Your task to perform on an android device: change notifications settings Image 0: 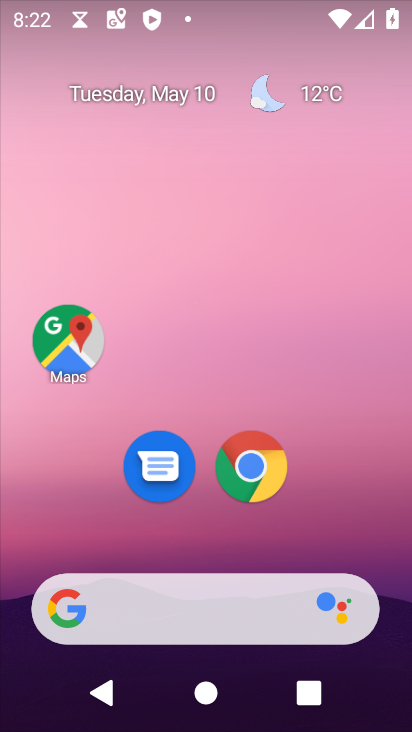
Step 0: drag from (208, 557) to (319, 44)
Your task to perform on an android device: change notifications settings Image 1: 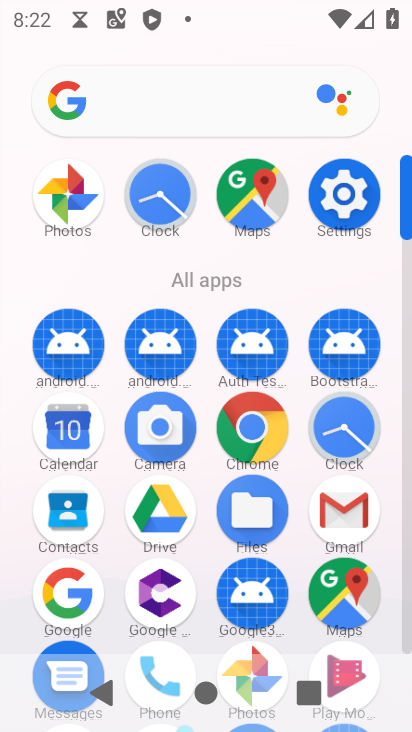
Step 1: click (345, 220)
Your task to perform on an android device: change notifications settings Image 2: 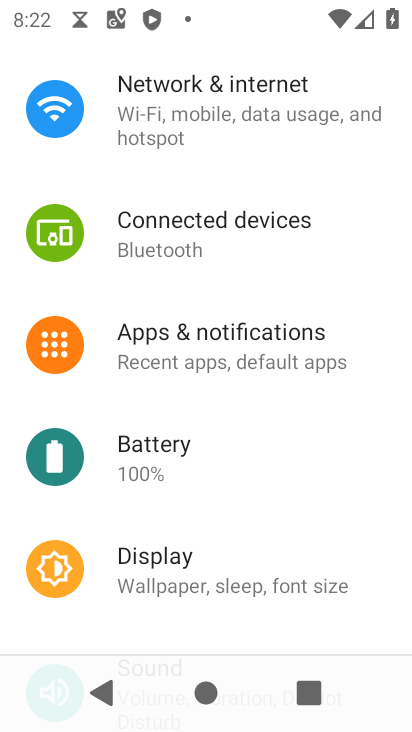
Step 2: click (280, 338)
Your task to perform on an android device: change notifications settings Image 3: 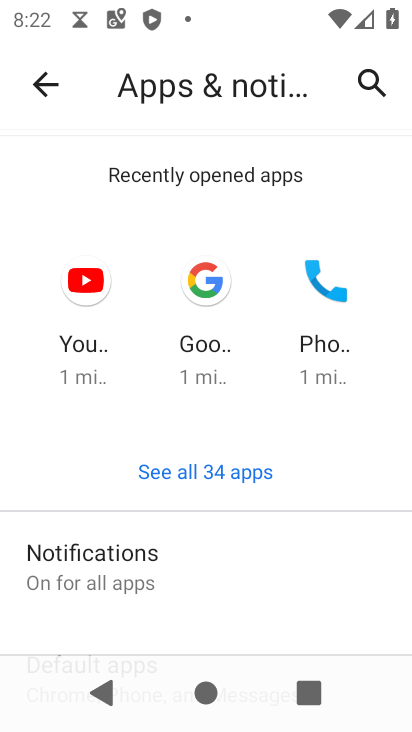
Step 3: drag from (203, 568) to (230, 441)
Your task to perform on an android device: change notifications settings Image 4: 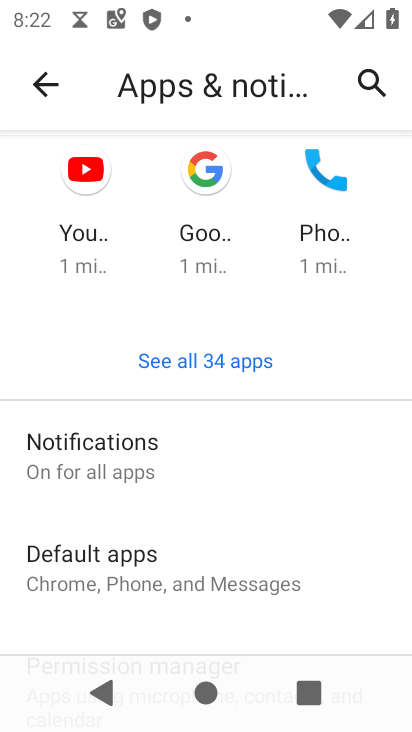
Step 4: click (133, 476)
Your task to perform on an android device: change notifications settings Image 5: 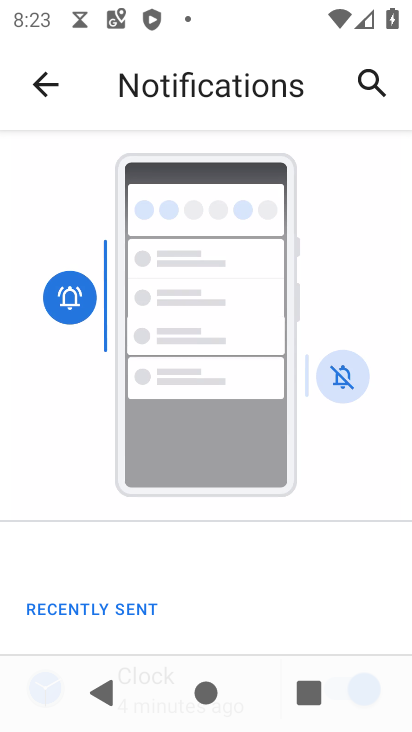
Step 5: drag from (217, 557) to (264, 246)
Your task to perform on an android device: change notifications settings Image 6: 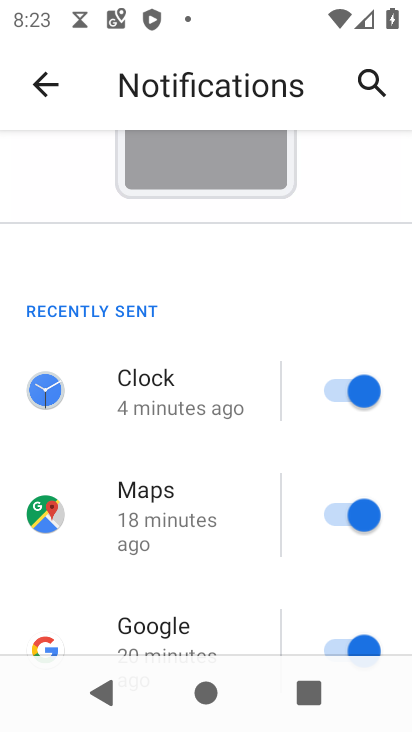
Step 6: drag from (208, 548) to (234, 268)
Your task to perform on an android device: change notifications settings Image 7: 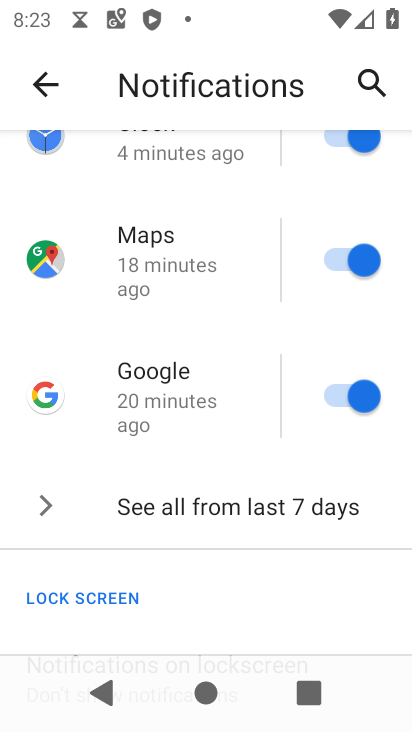
Step 7: click (332, 144)
Your task to perform on an android device: change notifications settings Image 8: 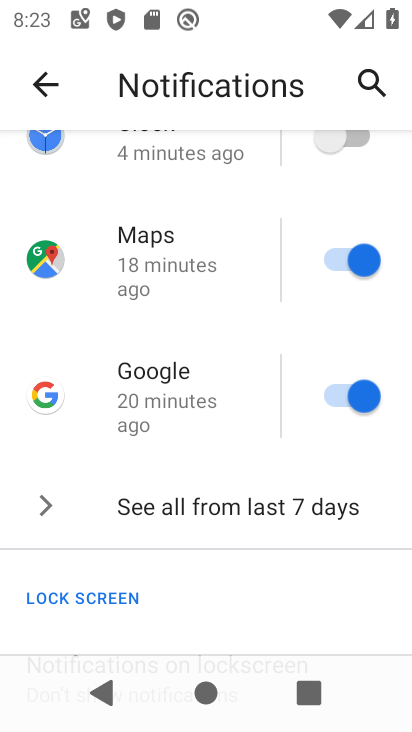
Step 8: click (333, 260)
Your task to perform on an android device: change notifications settings Image 9: 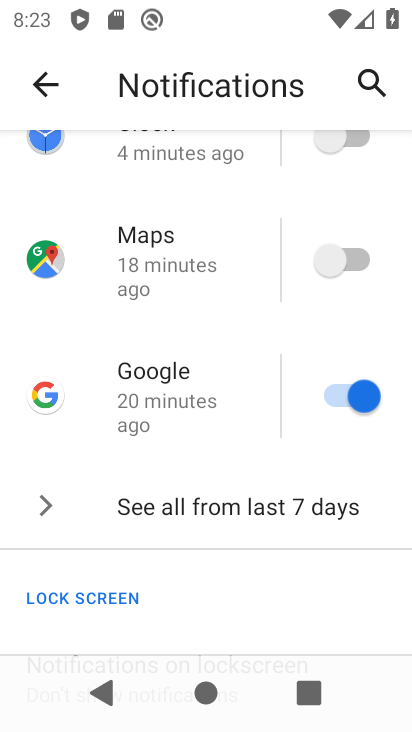
Step 9: click (326, 401)
Your task to perform on an android device: change notifications settings Image 10: 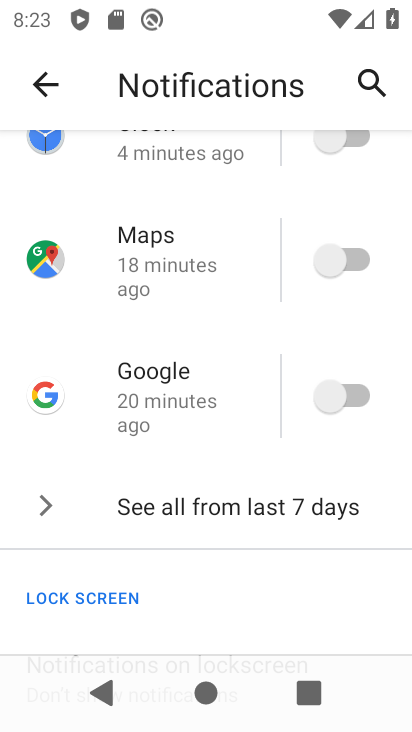
Step 10: click (255, 513)
Your task to perform on an android device: change notifications settings Image 11: 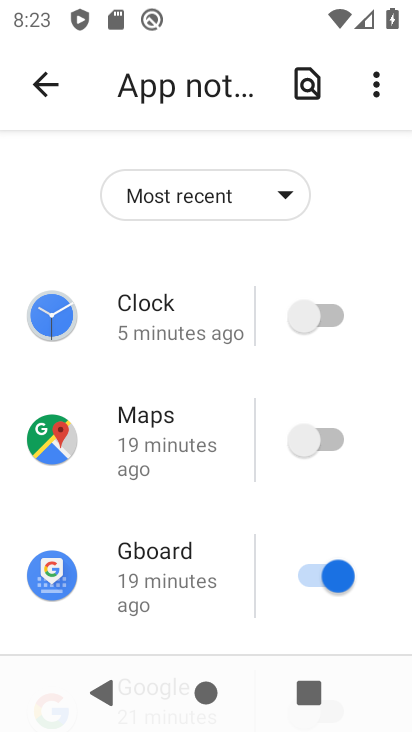
Step 11: drag from (275, 534) to (318, 173)
Your task to perform on an android device: change notifications settings Image 12: 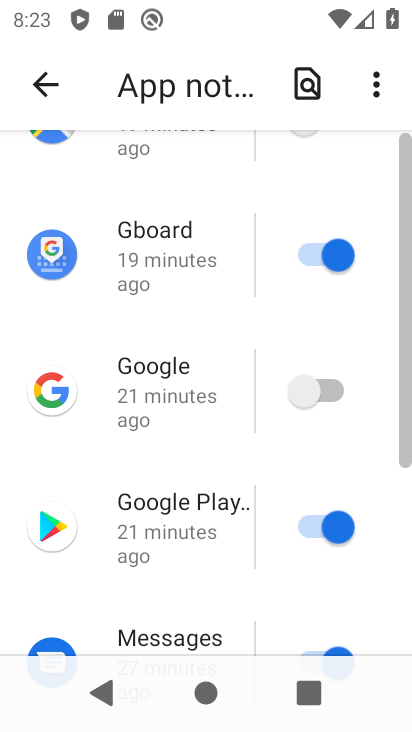
Step 12: click (312, 262)
Your task to perform on an android device: change notifications settings Image 13: 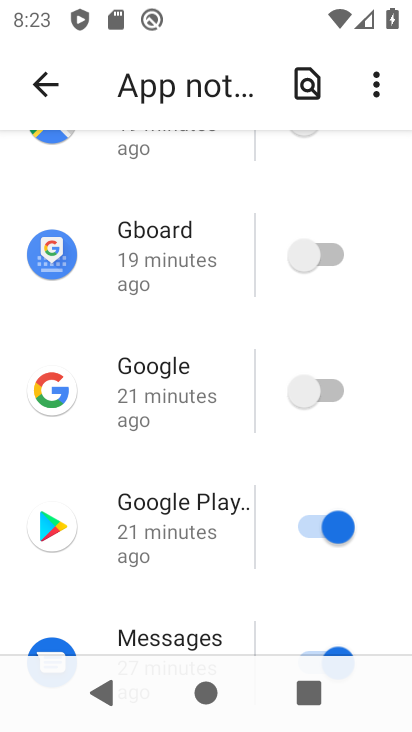
Step 13: click (314, 524)
Your task to perform on an android device: change notifications settings Image 14: 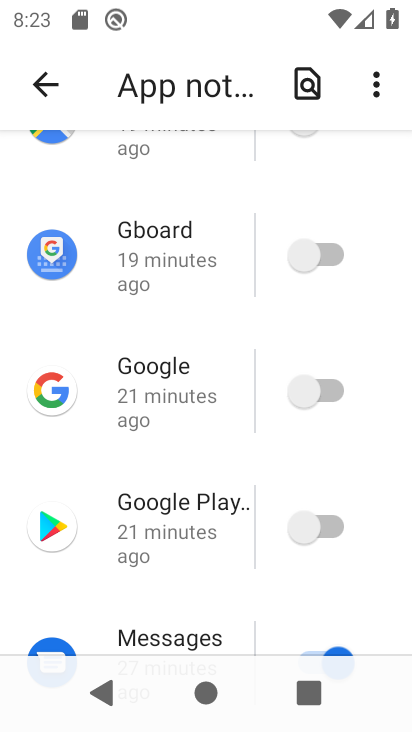
Step 14: drag from (173, 564) to (239, 203)
Your task to perform on an android device: change notifications settings Image 15: 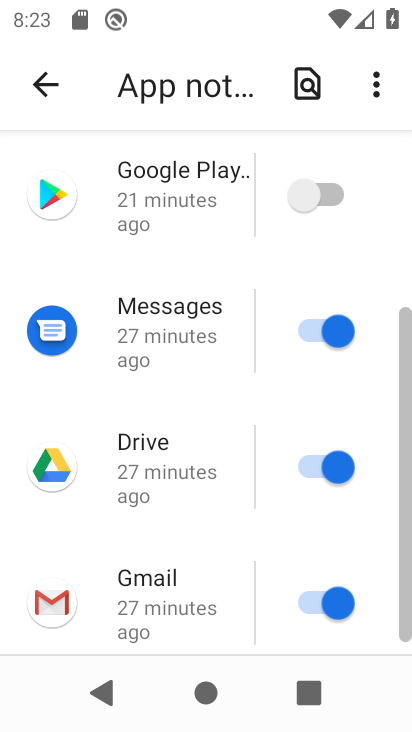
Step 15: click (290, 328)
Your task to perform on an android device: change notifications settings Image 16: 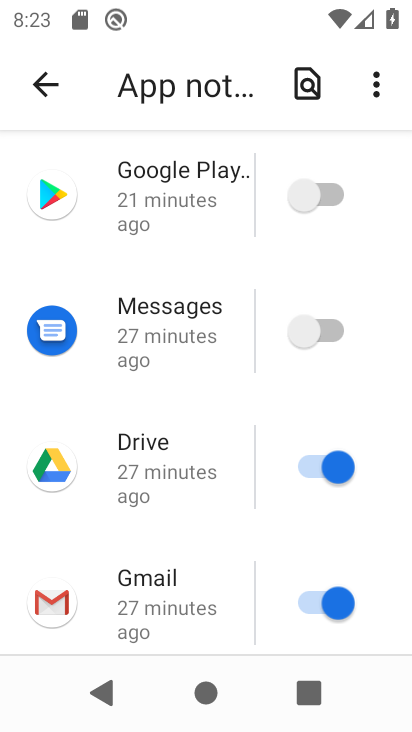
Step 16: click (306, 473)
Your task to perform on an android device: change notifications settings Image 17: 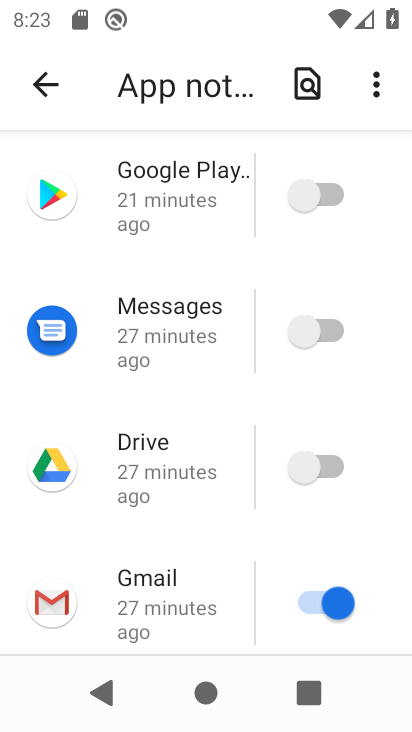
Step 17: click (303, 604)
Your task to perform on an android device: change notifications settings Image 18: 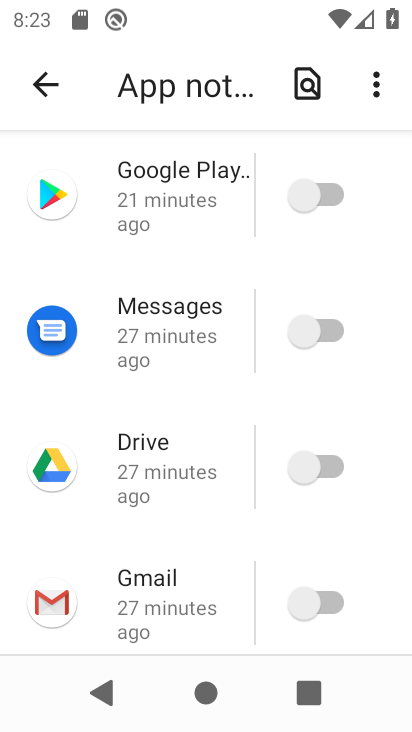
Step 18: drag from (211, 554) to (244, 190)
Your task to perform on an android device: change notifications settings Image 19: 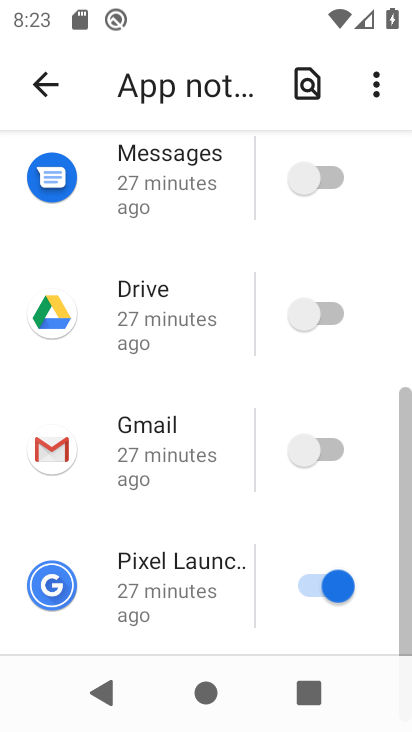
Step 19: click (298, 592)
Your task to perform on an android device: change notifications settings Image 20: 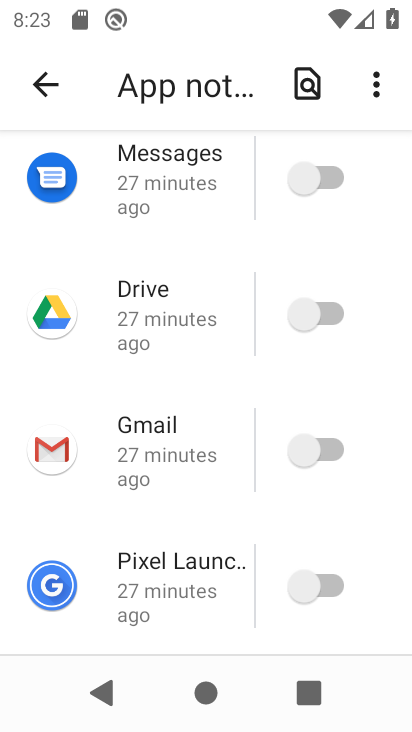
Step 20: task complete